Your task to perform on an android device: turn on airplane mode Image 0: 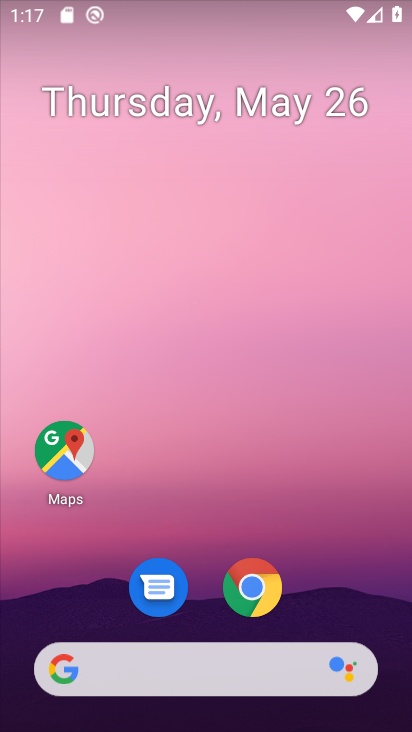
Step 0: drag from (313, 604) to (256, 78)
Your task to perform on an android device: turn on airplane mode Image 1: 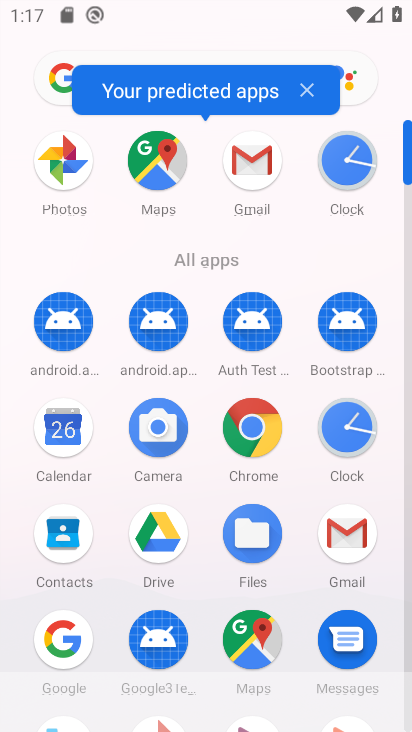
Step 1: drag from (13, 564) to (7, 224)
Your task to perform on an android device: turn on airplane mode Image 2: 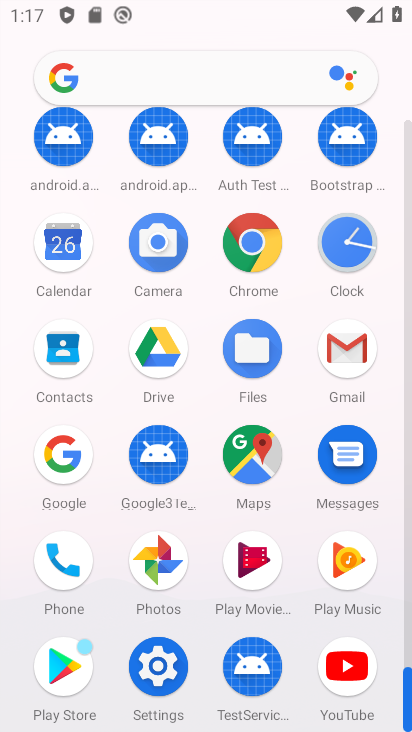
Step 2: click (154, 664)
Your task to perform on an android device: turn on airplane mode Image 3: 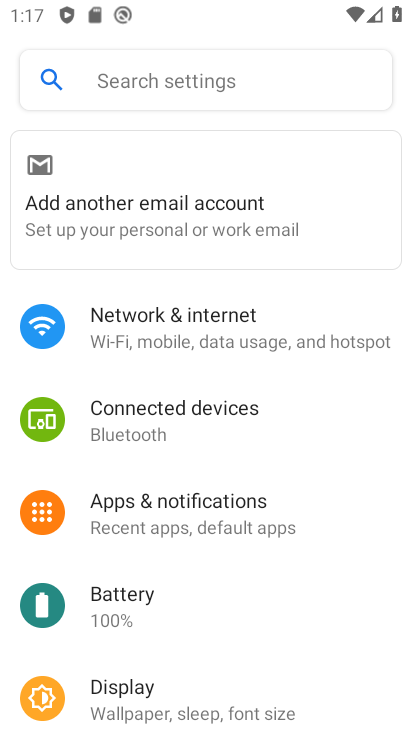
Step 3: click (186, 324)
Your task to perform on an android device: turn on airplane mode Image 4: 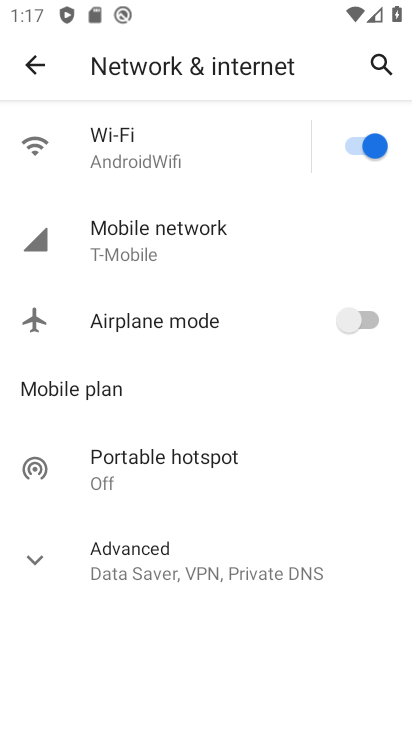
Step 4: click (31, 560)
Your task to perform on an android device: turn on airplane mode Image 5: 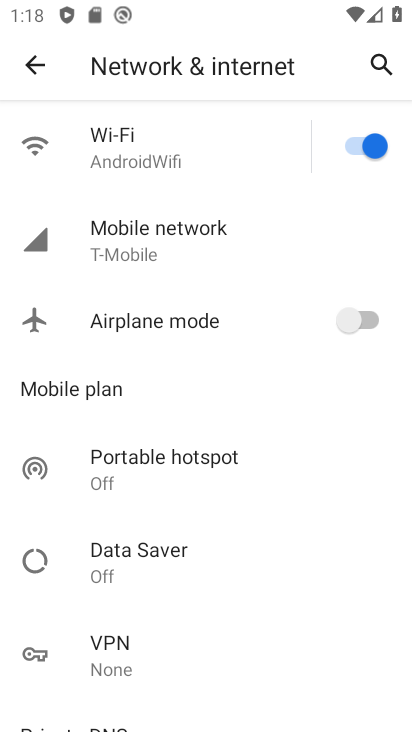
Step 5: click (372, 312)
Your task to perform on an android device: turn on airplane mode Image 6: 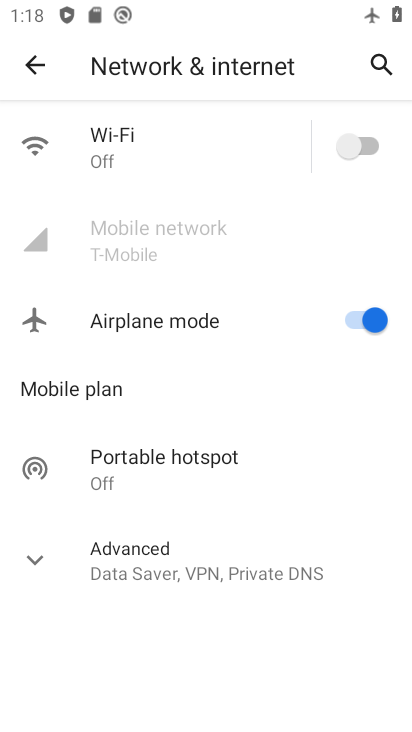
Step 6: click (32, 547)
Your task to perform on an android device: turn on airplane mode Image 7: 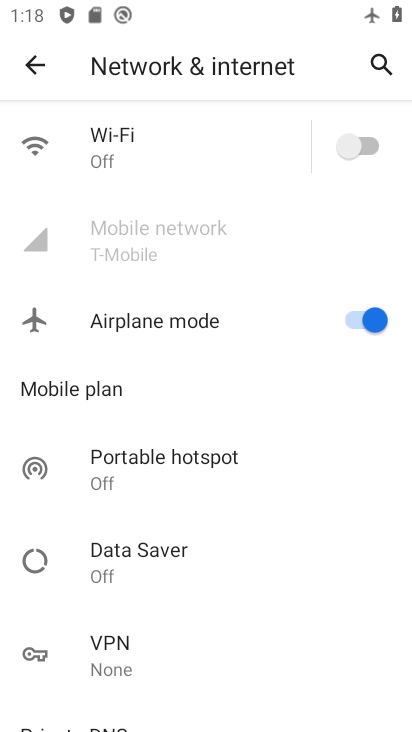
Step 7: task complete